Your task to perform on an android device: open a bookmark in the chrome app Image 0: 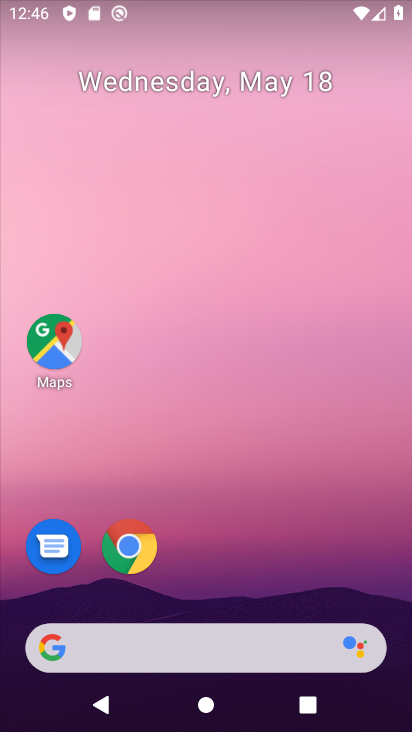
Step 0: click (220, 488)
Your task to perform on an android device: open a bookmark in the chrome app Image 1: 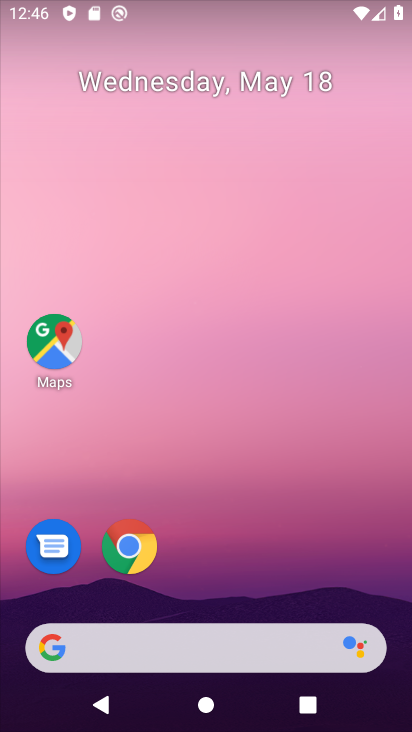
Step 1: click (122, 559)
Your task to perform on an android device: open a bookmark in the chrome app Image 2: 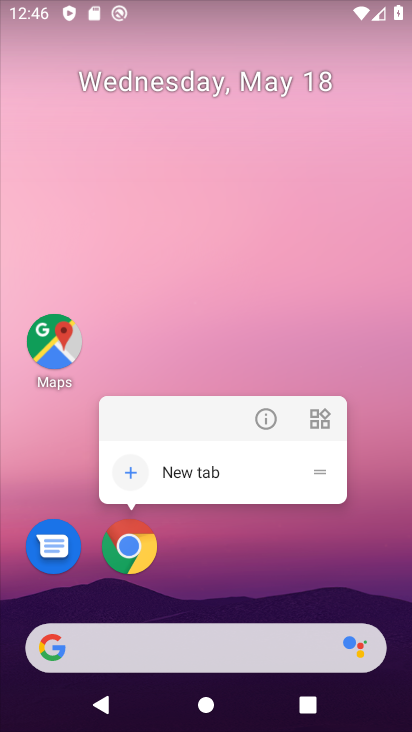
Step 2: click (132, 532)
Your task to perform on an android device: open a bookmark in the chrome app Image 3: 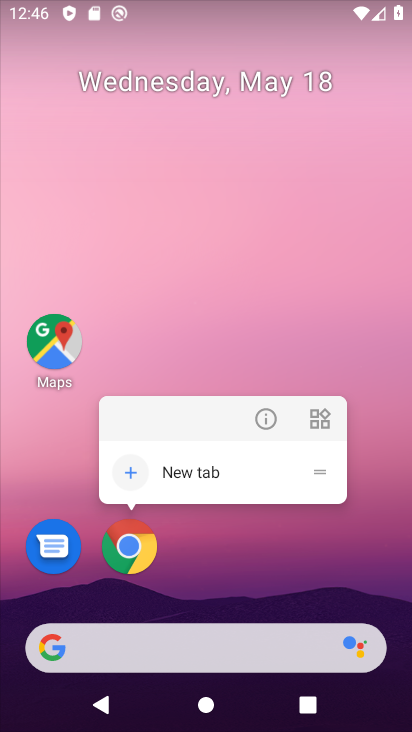
Step 3: click (136, 542)
Your task to perform on an android device: open a bookmark in the chrome app Image 4: 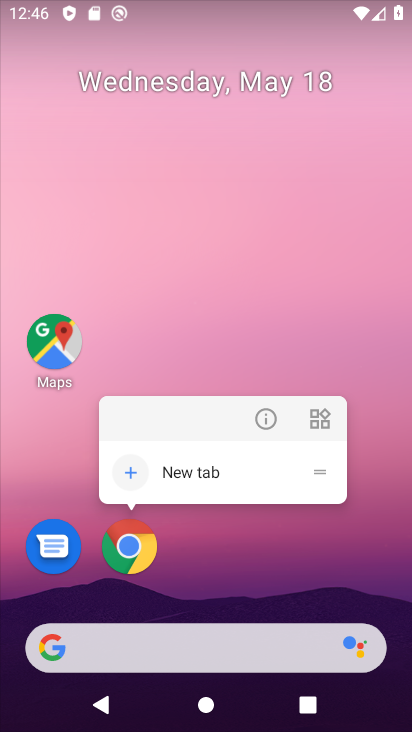
Step 4: click (139, 550)
Your task to perform on an android device: open a bookmark in the chrome app Image 5: 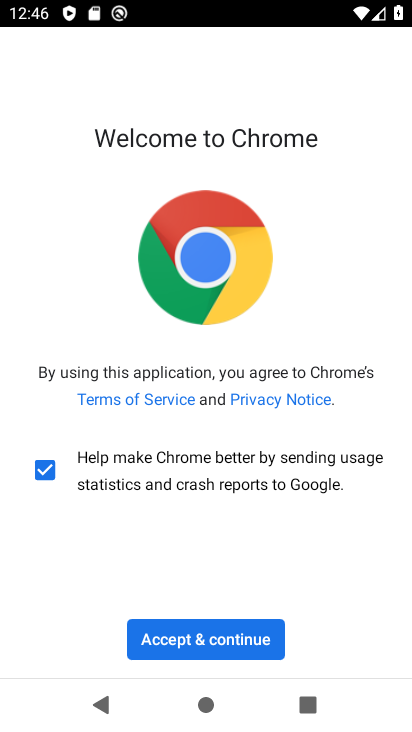
Step 5: click (229, 644)
Your task to perform on an android device: open a bookmark in the chrome app Image 6: 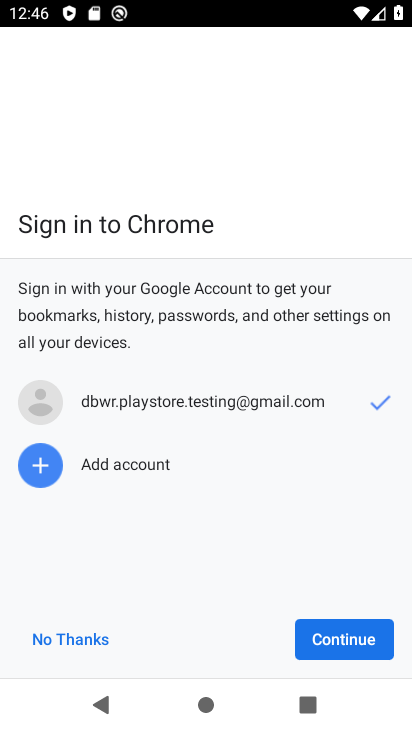
Step 6: click (354, 645)
Your task to perform on an android device: open a bookmark in the chrome app Image 7: 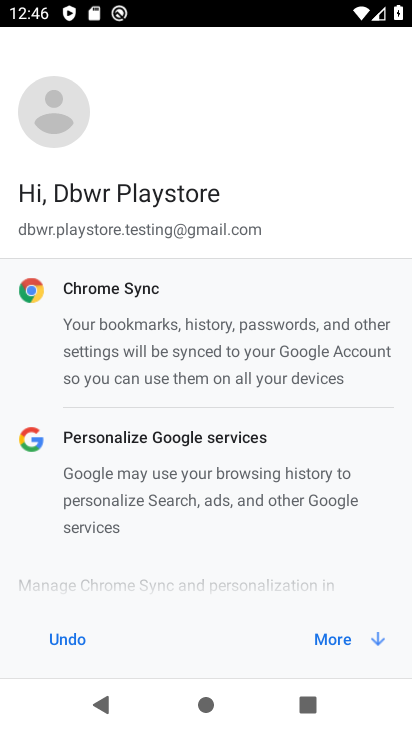
Step 7: click (352, 642)
Your task to perform on an android device: open a bookmark in the chrome app Image 8: 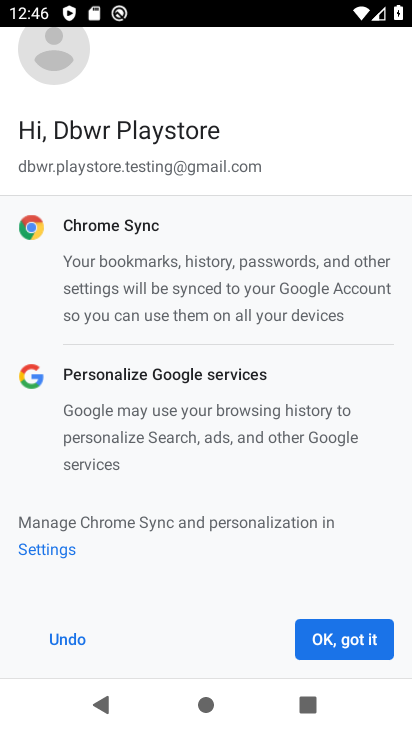
Step 8: click (352, 642)
Your task to perform on an android device: open a bookmark in the chrome app Image 9: 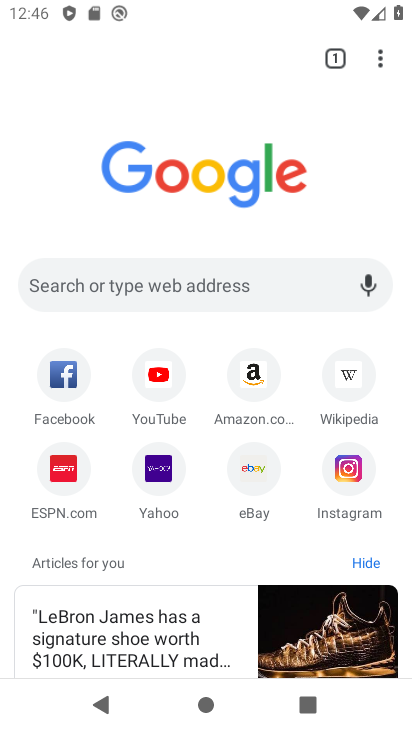
Step 9: task complete